Your task to perform on an android device: What's the weather? Image 0: 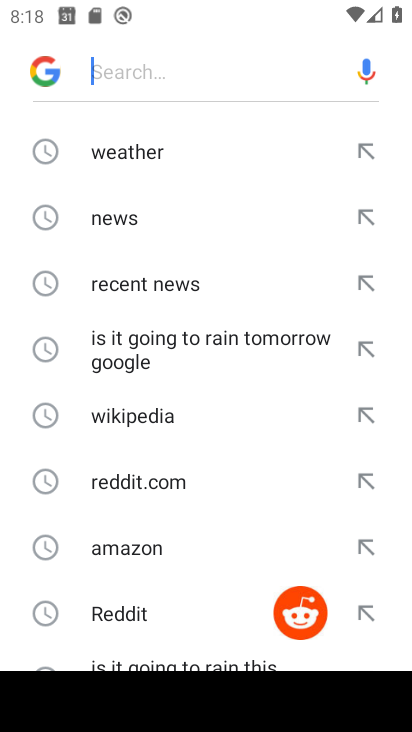
Step 0: click (93, 145)
Your task to perform on an android device: What's the weather? Image 1: 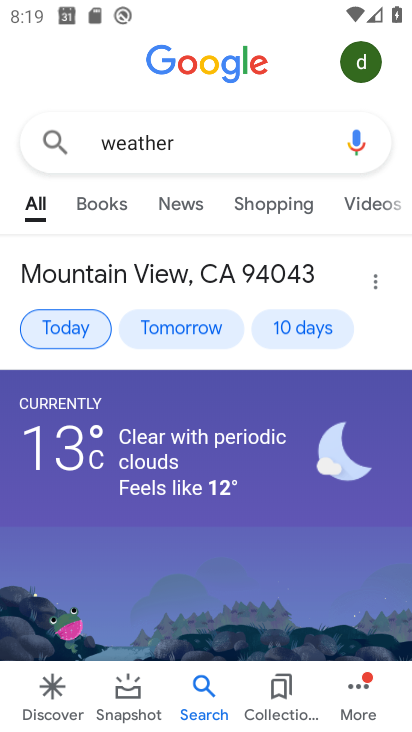
Step 1: task complete